Your task to perform on an android device: See recent photos Image 0: 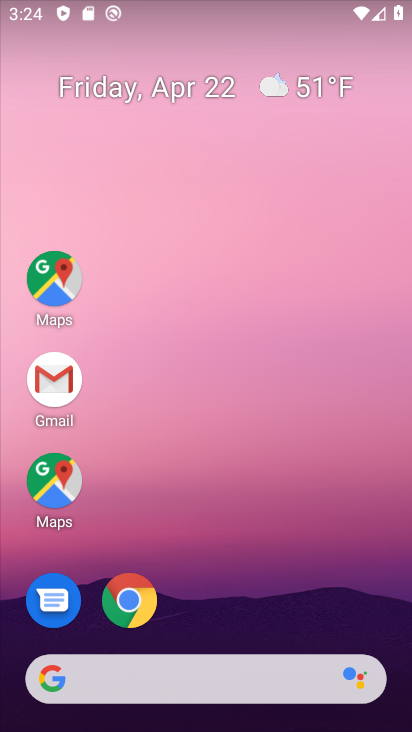
Step 0: drag from (210, 549) to (123, 231)
Your task to perform on an android device: See recent photos Image 1: 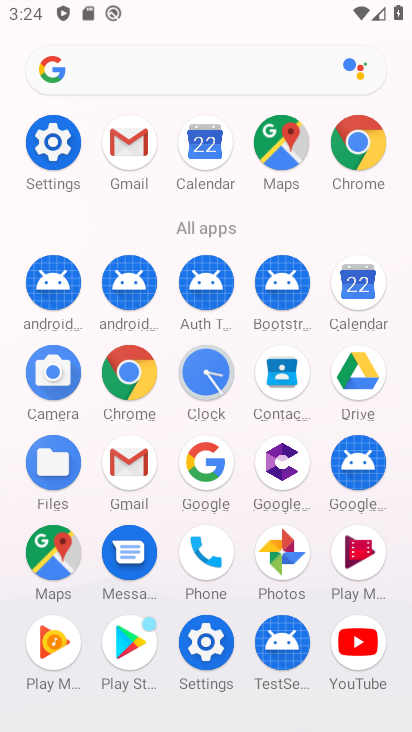
Step 1: click (281, 559)
Your task to perform on an android device: See recent photos Image 2: 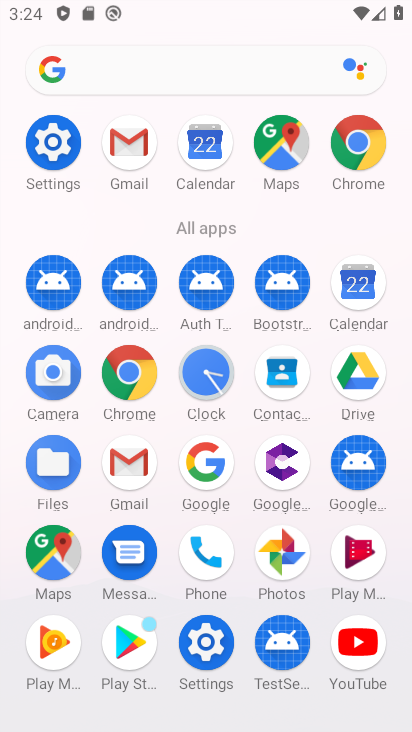
Step 2: click (290, 560)
Your task to perform on an android device: See recent photos Image 3: 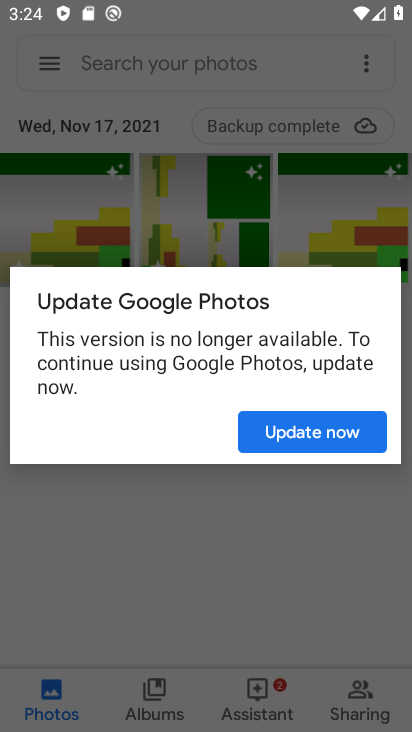
Step 3: click (337, 442)
Your task to perform on an android device: See recent photos Image 4: 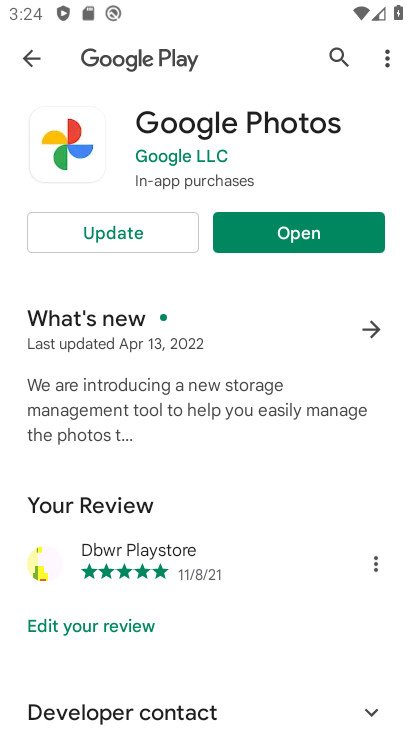
Step 4: click (282, 235)
Your task to perform on an android device: See recent photos Image 5: 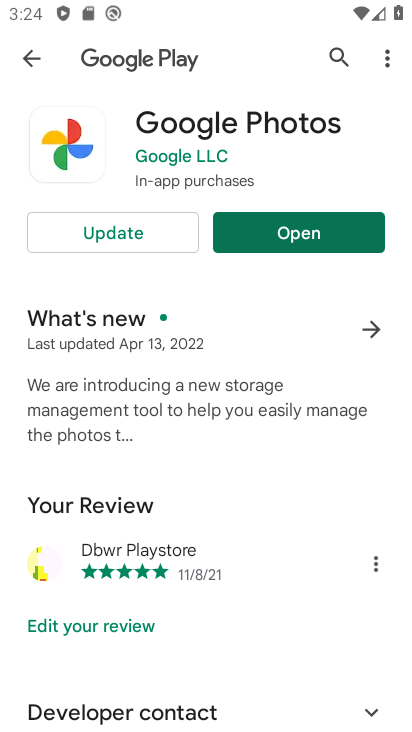
Step 5: click (282, 235)
Your task to perform on an android device: See recent photos Image 6: 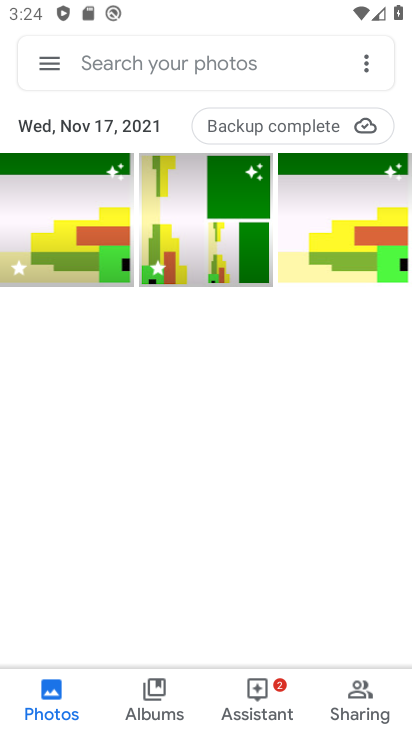
Step 6: click (282, 235)
Your task to perform on an android device: See recent photos Image 7: 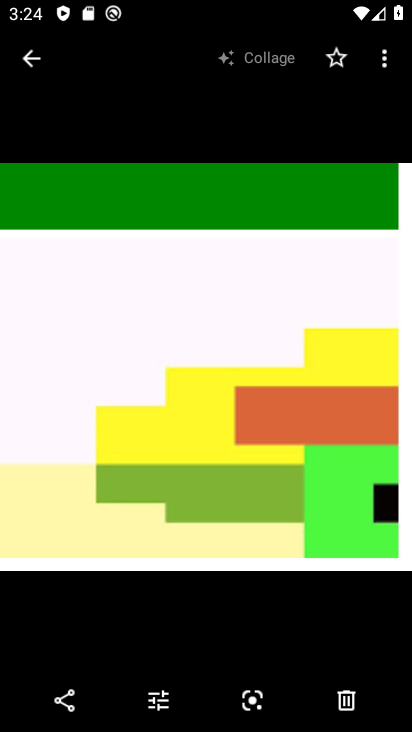
Step 7: click (26, 67)
Your task to perform on an android device: See recent photos Image 8: 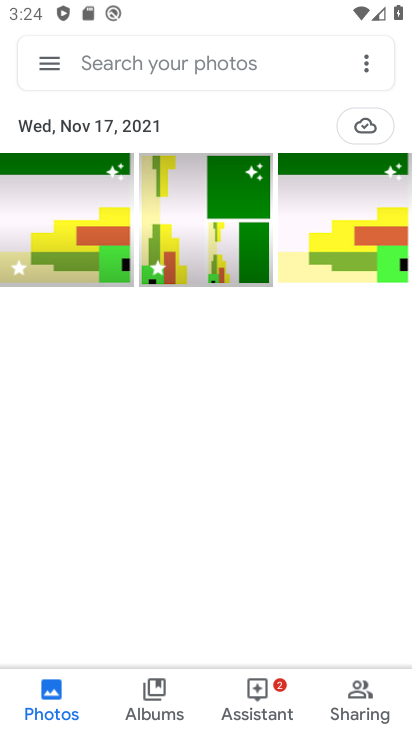
Step 8: task complete